Your task to perform on an android device: choose inbox layout in the gmail app Image 0: 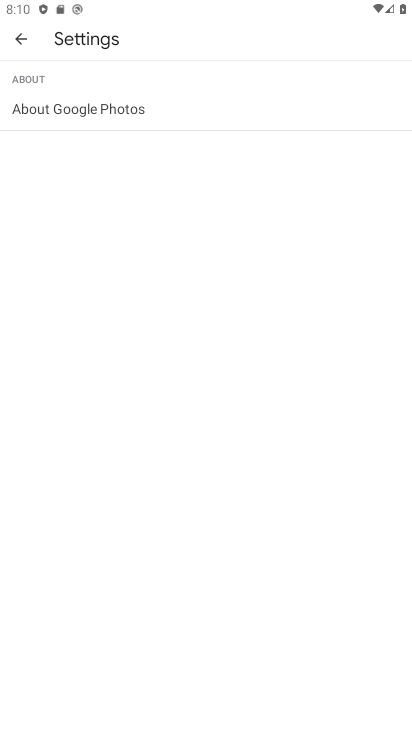
Step 0: press home button
Your task to perform on an android device: choose inbox layout in the gmail app Image 1: 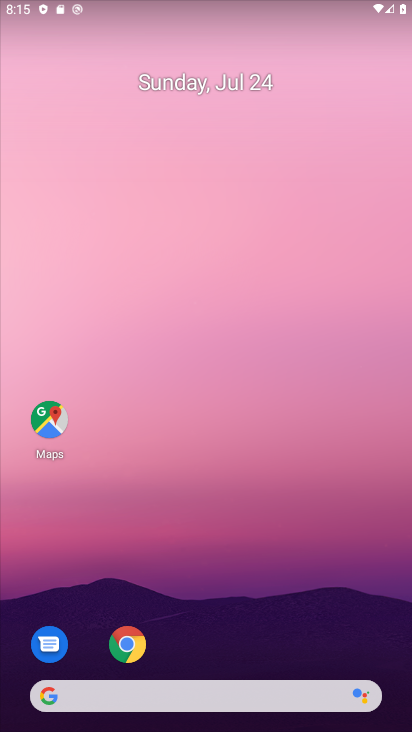
Step 1: task complete